Your task to perform on an android device: Open the calendar and show me this week's events Image 0: 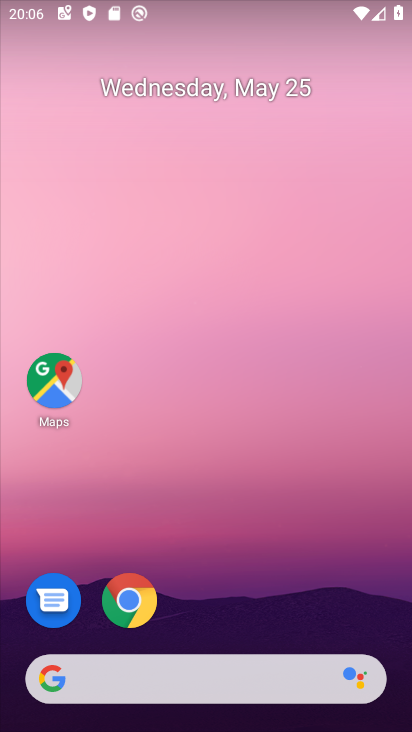
Step 0: drag from (332, 625) to (258, 208)
Your task to perform on an android device: Open the calendar and show me this week's events Image 1: 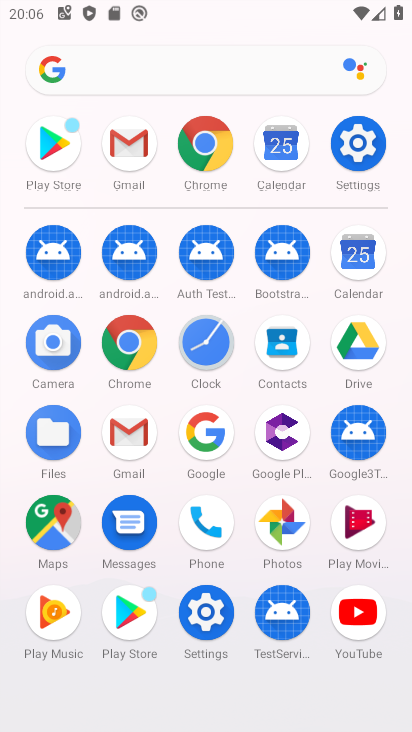
Step 1: click (351, 252)
Your task to perform on an android device: Open the calendar and show me this week's events Image 2: 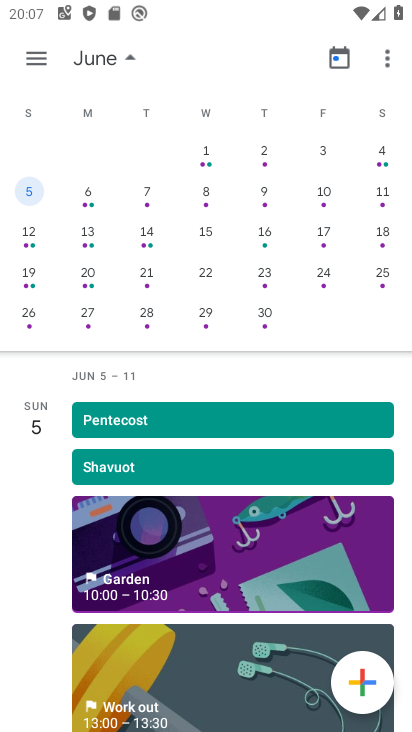
Step 2: click (94, 63)
Your task to perform on an android device: Open the calendar and show me this week's events Image 3: 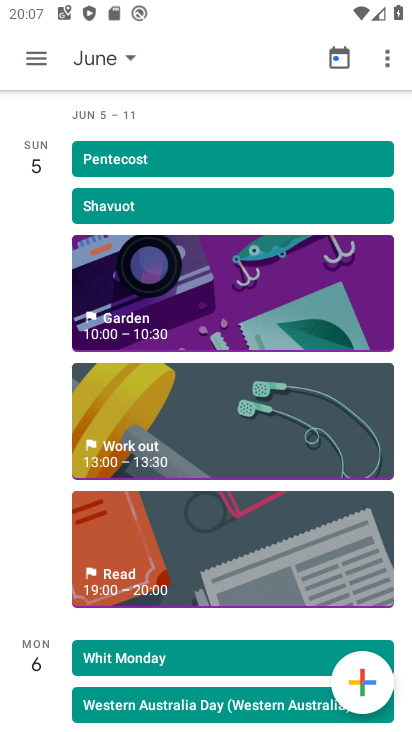
Step 3: click (84, 59)
Your task to perform on an android device: Open the calendar and show me this week's events Image 4: 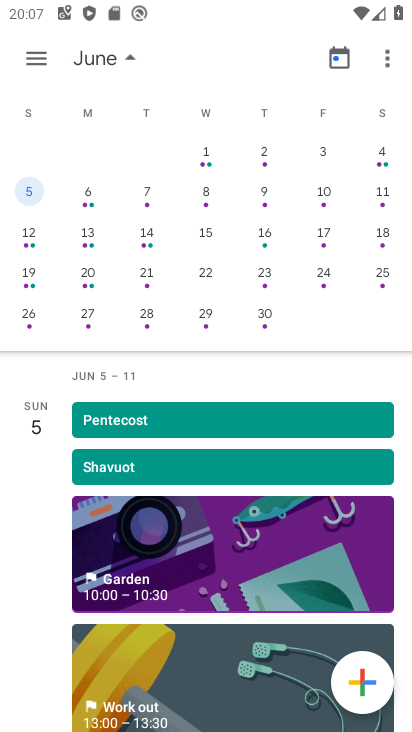
Step 4: drag from (92, 244) to (401, 218)
Your task to perform on an android device: Open the calendar and show me this week's events Image 5: 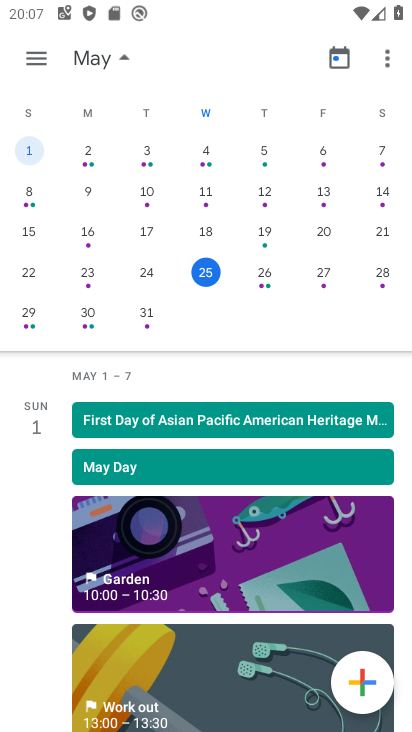
Step 5: click (32, 270)
Your task to perform on an android device: Open the calendar and show me this week's events Image 6: 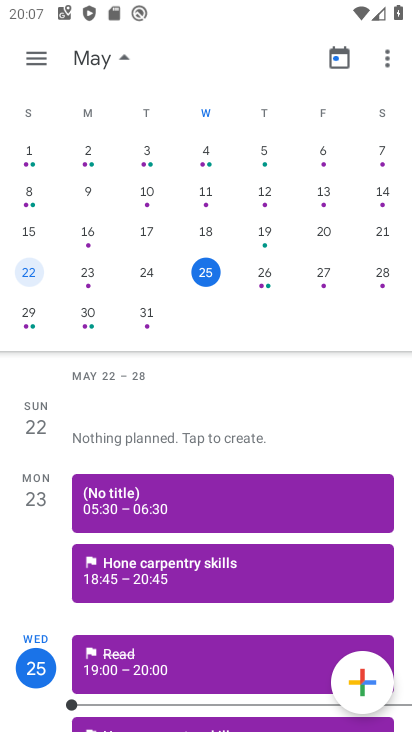
Step 6: task complete